Your task to perform on an android device: Go to privacy settings Image 0: 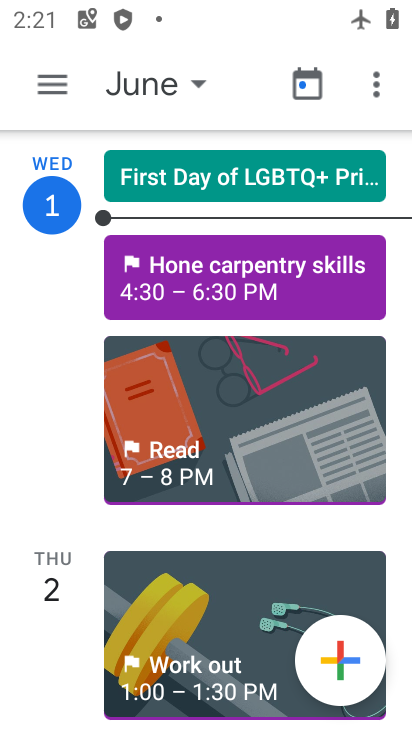
Step 0: press home button
Your task to perform on an android device: Go to privacy settings Image 1: 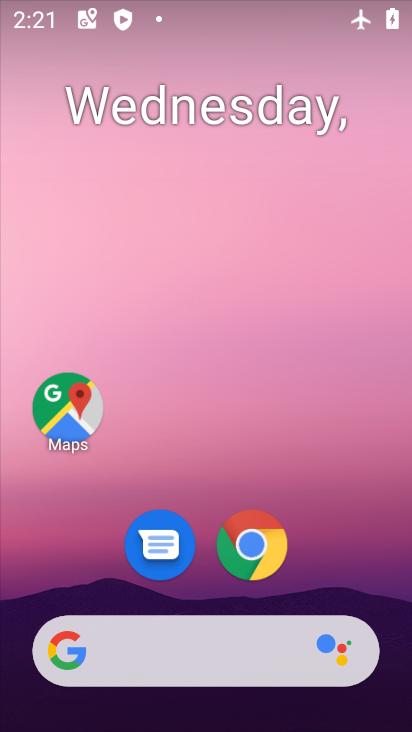
Step 1: drag from (307, 556) to (292, 105)
Your task to perform on an android device: Go to privacy settings Image 2: 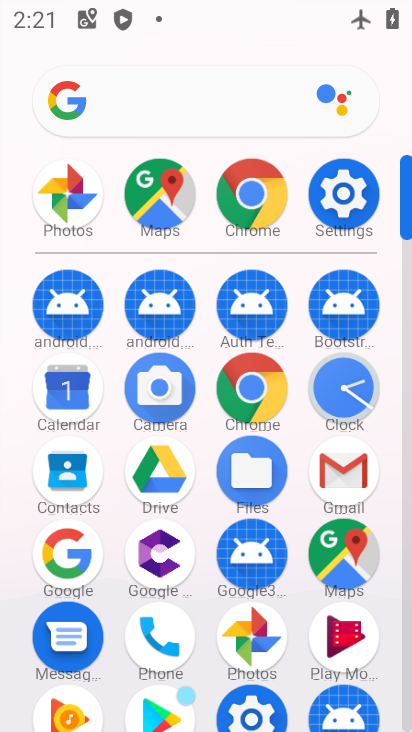
Step 2: click (333, 189)
Your task to perform on an android device: Go to privacy settings Image 3: 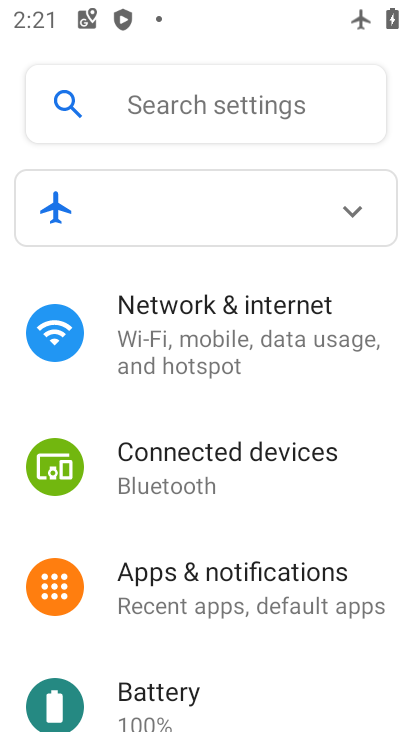
Step 3: drag from (232, 557) to (285, 88)
Your task to perform on an android device: Go to privacy settings Image 4: 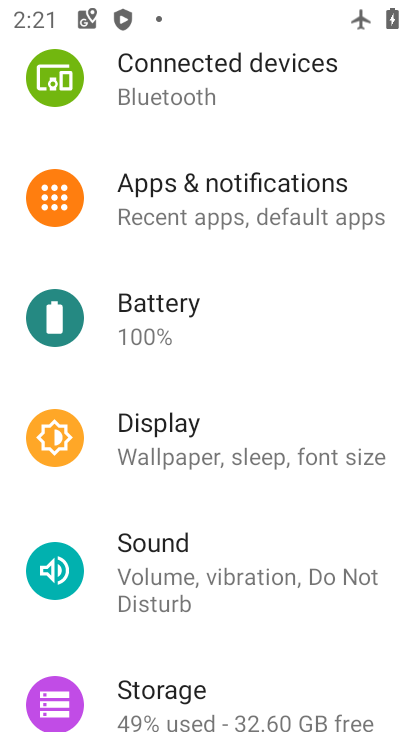
Step 4: drag from (255, 400) to (287, 166)
Your task to perform on an android device: Go to privacy settings Image 5: 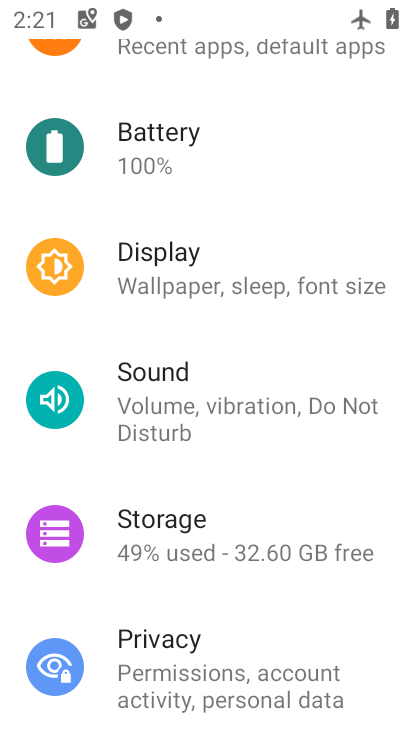
Step 5: drag from (246, 621) to (289, 294)
Your task to perform on an android device: Go to privacy settings Image 6: 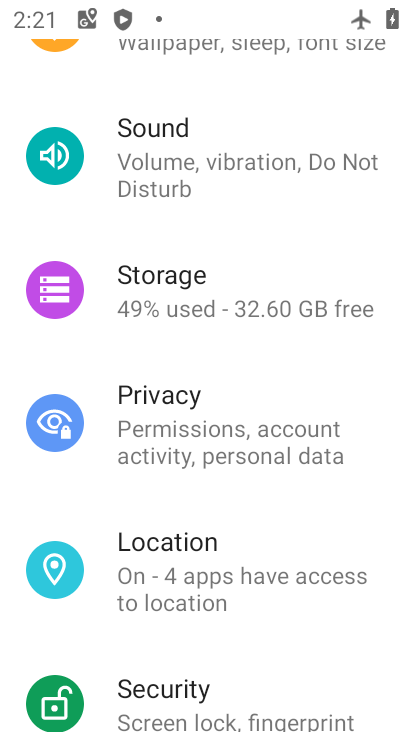
Step 6: click (216, 419)
Your task to perform on an android device: Go to privacy settings Image 7: 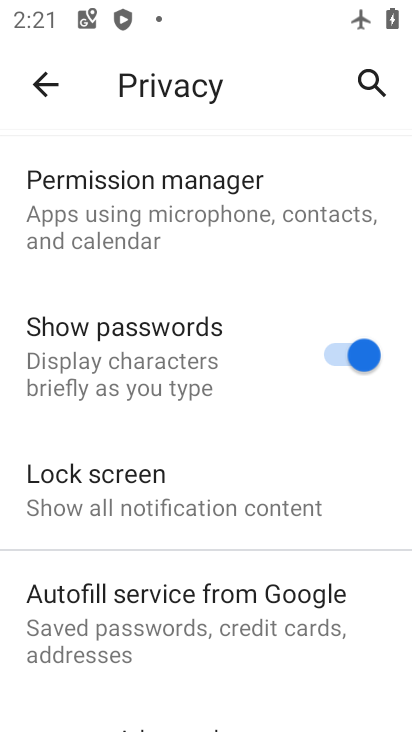
Step 7: task complete